Your task to perform on an android device: Open the web browser Image 0: 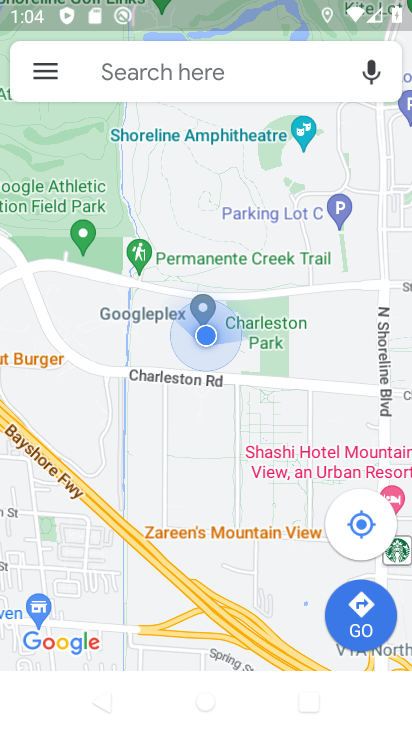
Step 0: press home button
Your task to perform on an android device: Open the web browser Image 1: 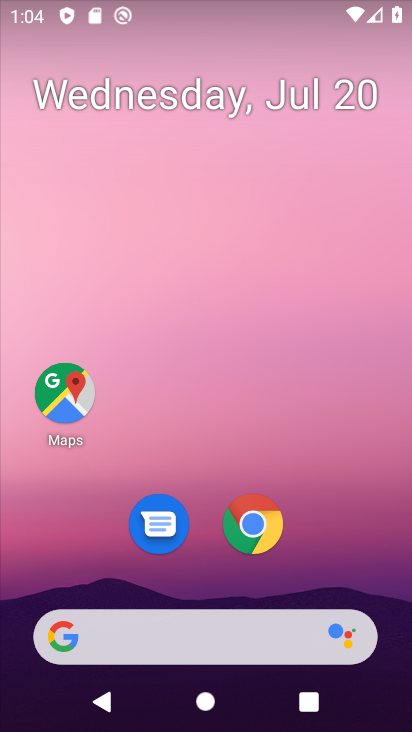
Step 1: click (266, 637)
Your task to perform on an android device: Open the web browser Image 2: 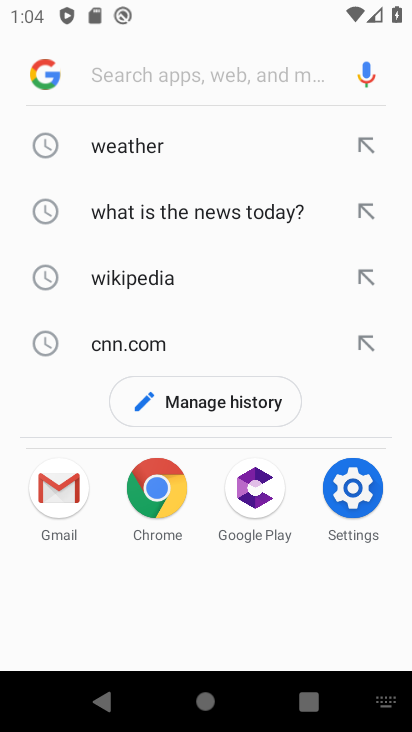
Step 2: task complete